Your task to perform on an android device: When is my next appointment? Image 0: 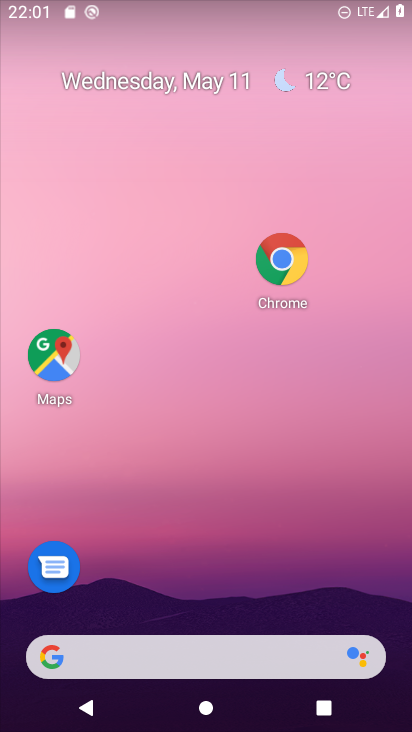
Step 0: press home button
Your task to perform on an android device: When is my next appointment? Image 1: 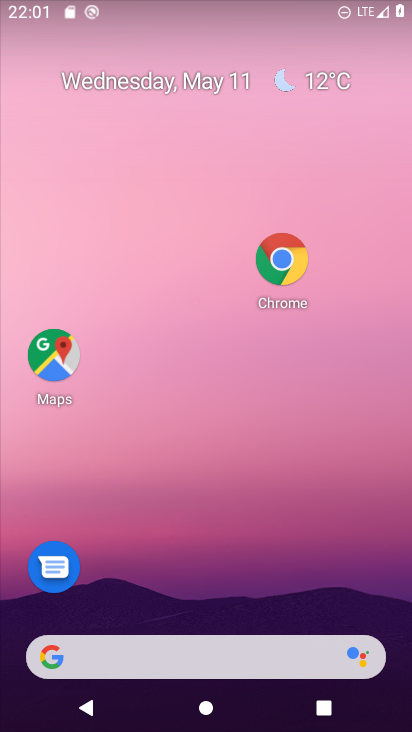
Step 1: drag from (175, 656) to (311, 116)
Your task to perform on an android device: When is my next appointment? Image 2: 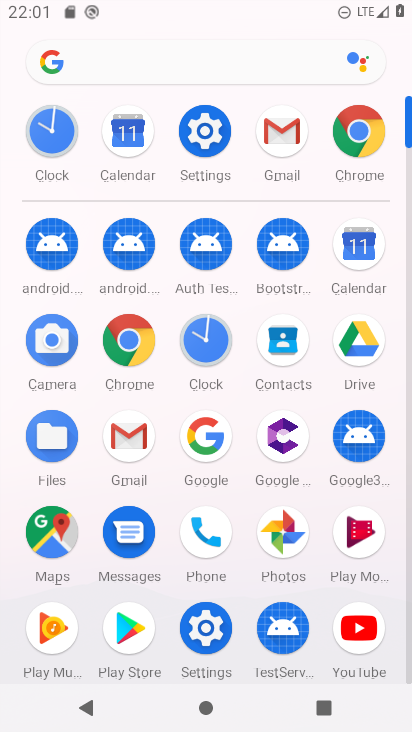
Step 2: click (361, 248)
Your task to perform on an android device: When is my next appointment? Image 3: 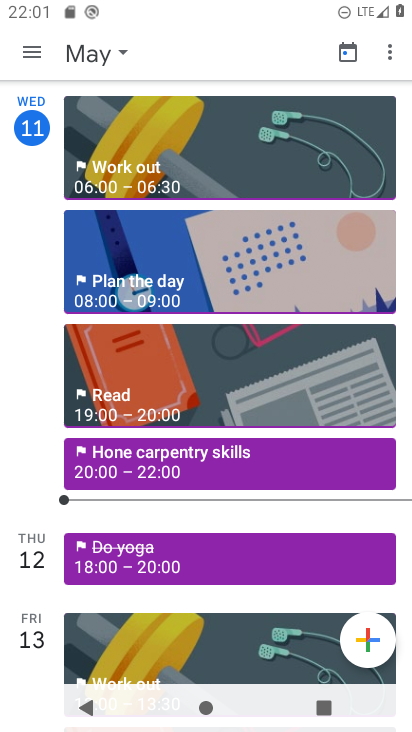
Step 3: drag from (184, 470) to (274, 260)
Your task to perform on an android device: When is my next appointment? Image 4: 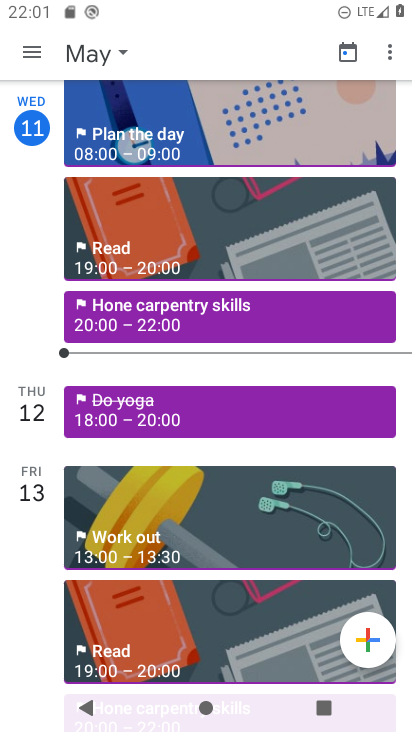
Step 4: click (191, 320)
Your task to perform on an android device: When is my next appointment? Image 5: 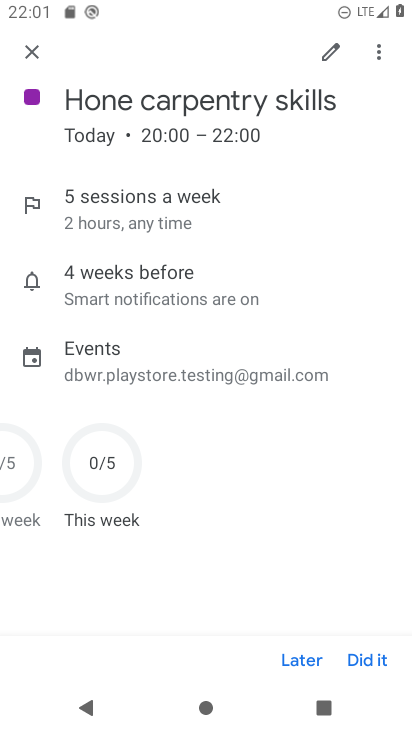
Step 5: task complete